Your task to perform on an android device: Go to notification settings Image 0: 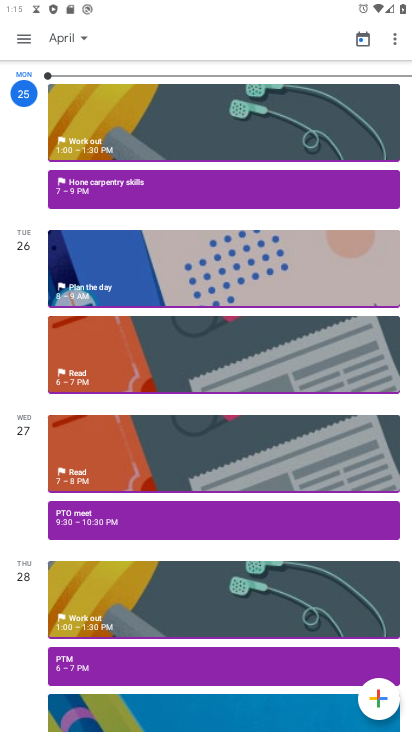
Step 0: press home button
Your task to perform on an android device: Go to notification settings Image 1: 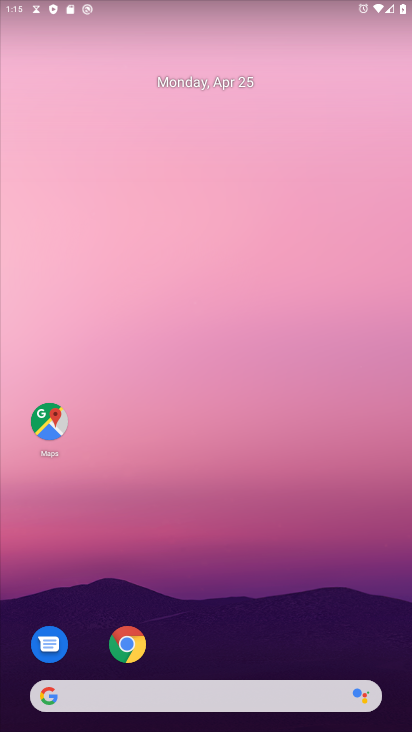
Step 1: drag from (306, 655) to (282, 13)
Your task to perform on an android device: Go to notification settings Image 2: 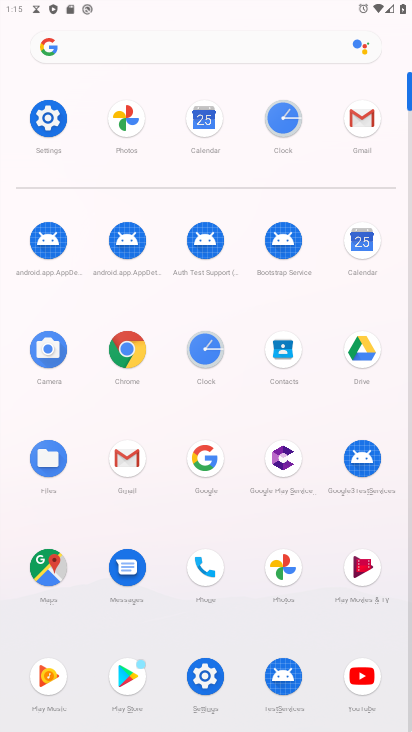
Step 2: click (52, 120)
Your task to perform on an android device: Go to notification settings Image 3: 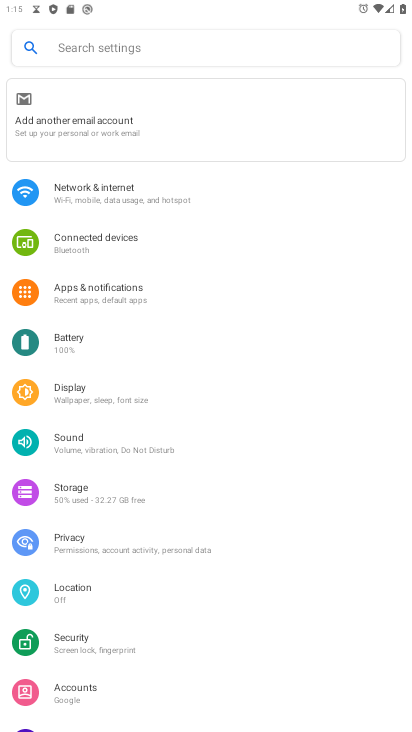
Step 3: click (123, 299)
Your task to perform on an android device: Go to notification settings Image 4: 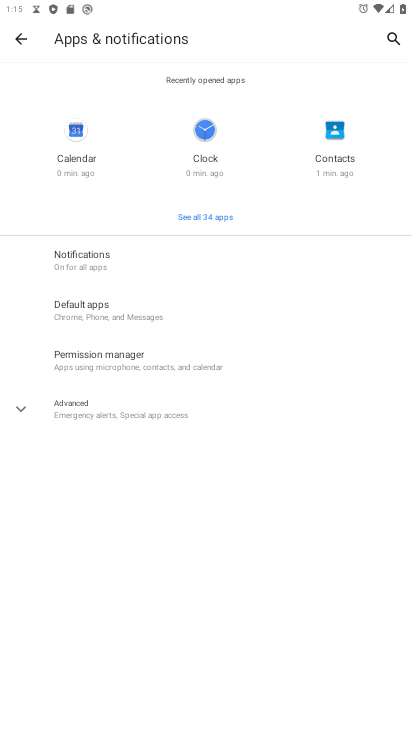
Step 4: task complete